Your task to perform on an android device: Show me the alarms in the clock app Image 0: 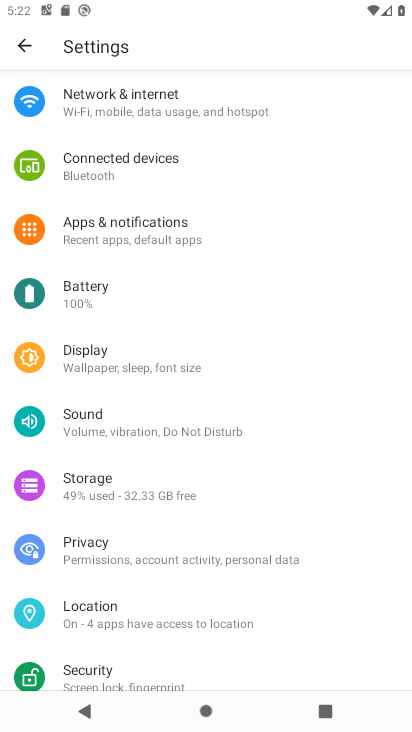
Step 0: press home button
Your task to perform on an android device: Show me the alarms in the clock app Image 1: 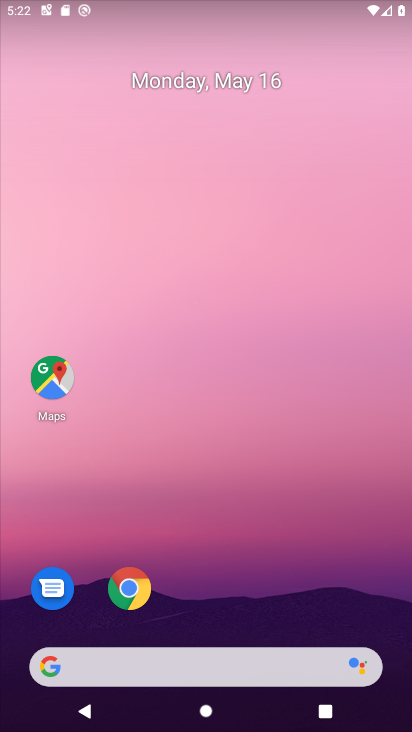
Step 1: drag from (280, 568) to (196, 37)
Your task to perform on an android device: Show me the alarms in the clock app Image 2: 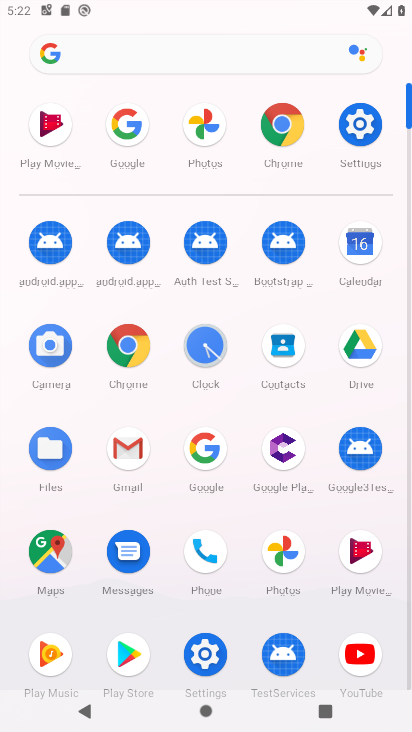
Step 2: click (195, 357)
Your task to perform on an android device: Show me the alarms in the clock app Image 3: 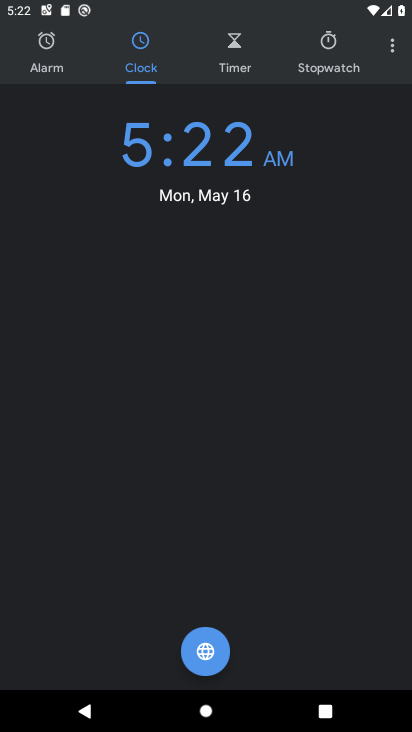
Step 3: click (50, 54)
Your task to perform on an android device: Show me the alarms in the clock app Image 4: 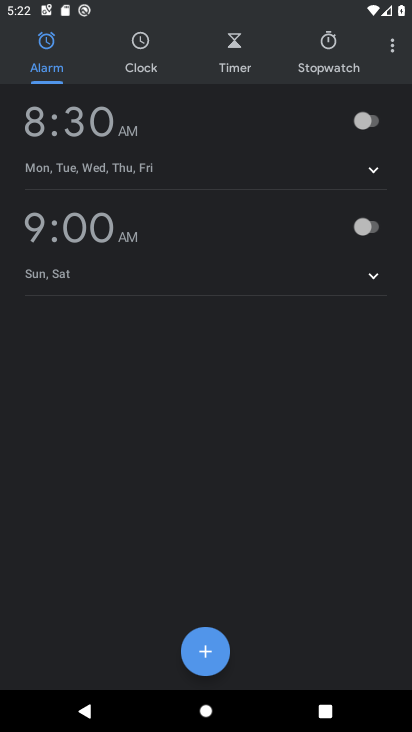
Step 4: task complete